Your task to perform on an android device: turn pop-ups on in chrome Image 0: 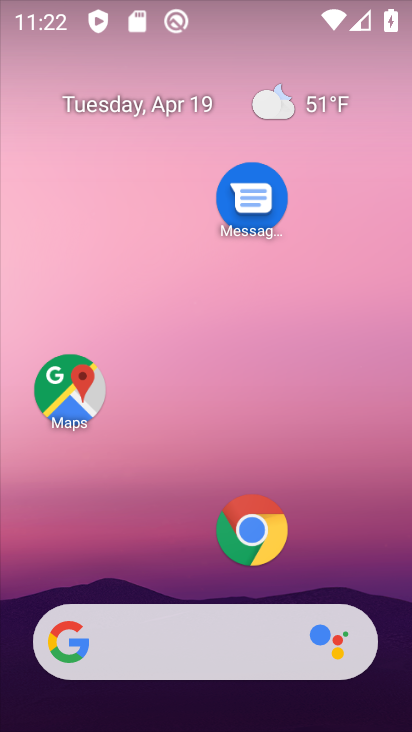
Step 0: click (252, 540)
Your task to perform on an android device: turn pop-ups on in chrome Image 1: 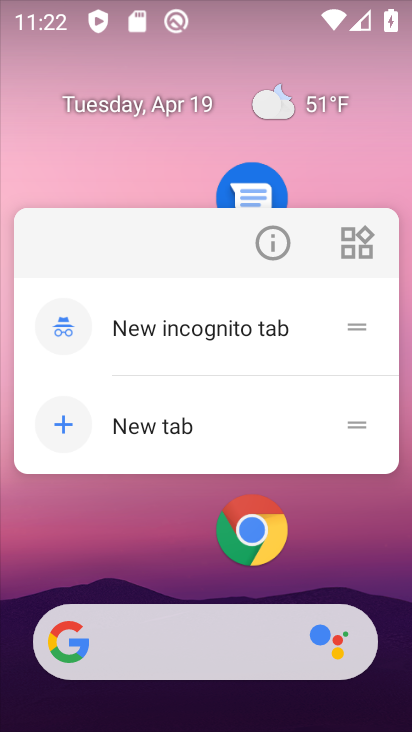
Step 1: click (282, 540)
Your task to perform on an android device: turn pop-ups on in chrome Image 2: 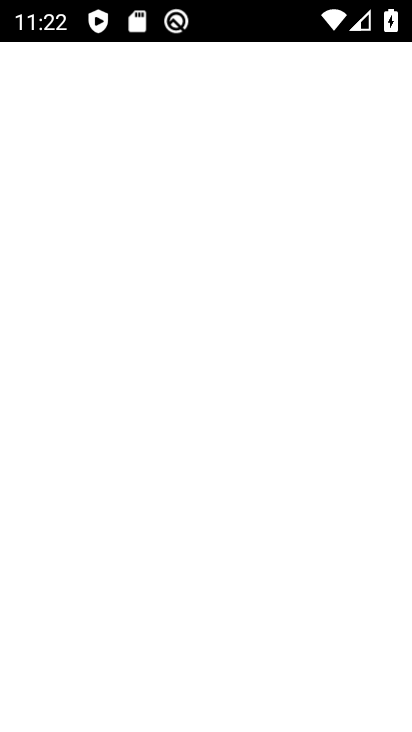
Step 2: click (285, 531)
Your task to perform on an android device: turn pop-ups on in chrome Image 3: 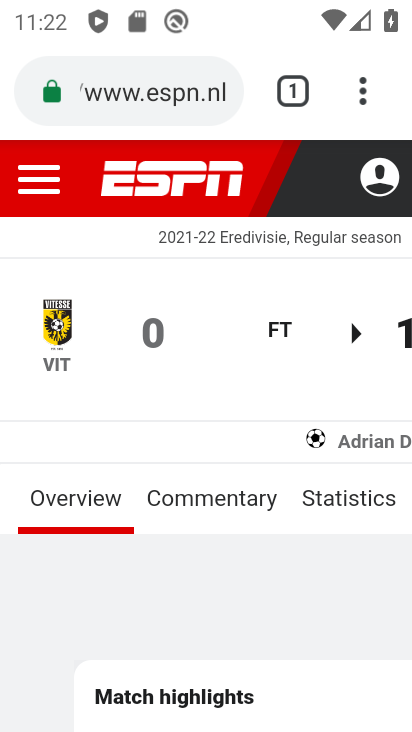
Step 3: drag from (368, 106) to (216, 569)
Your task to perform on an android device: turn pop-ups on in chrome Image 4: 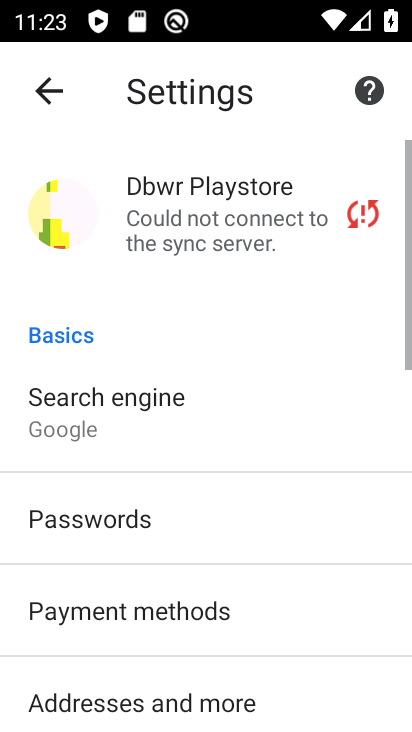
Step 4: drag from (101, 608) to (266, 191)
Your task to perform on an android device: turn pop-ups on in chrome Image 5: 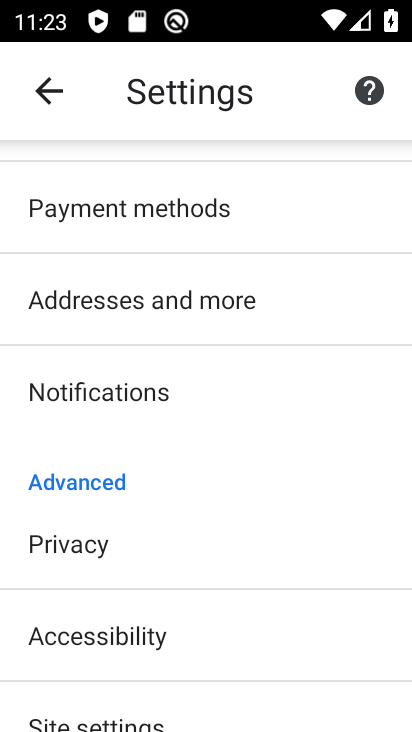
Step 5: drag from (192, 628) to (287, 296)
Your task to perform on an android device: turn pop-ups on in chrome Image 6: 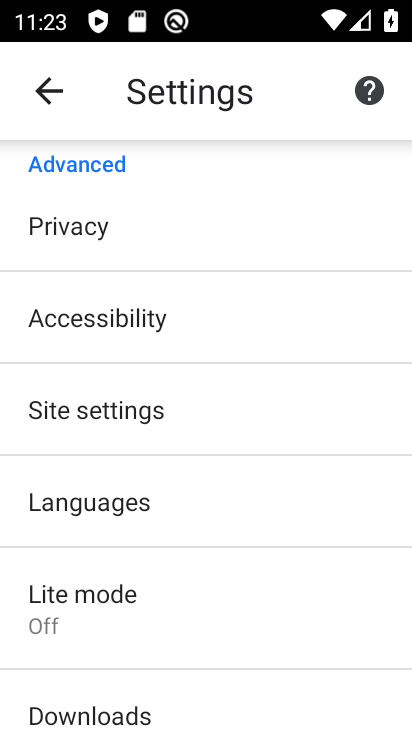
Step 6: click (205, 413)
Your task to perform on an android device: turn pop-ups on in chrome Image 7: 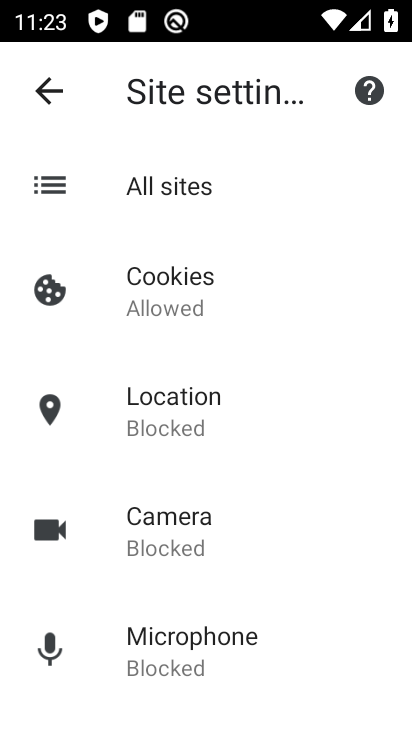
Step 7: drag from (209, 614) to (328, 225)
Your task to perform on an android device: turn pop-ups on in chrome Image 8: 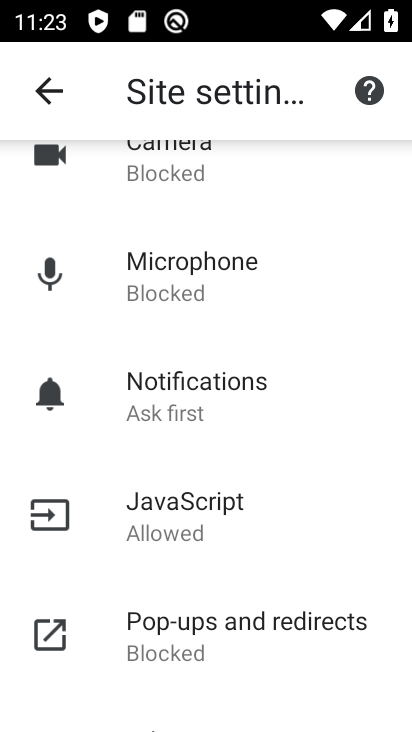
Step 8: click (227, 624)
Your task to perform on an android device: turn pop-ups on in chrome Image 9: 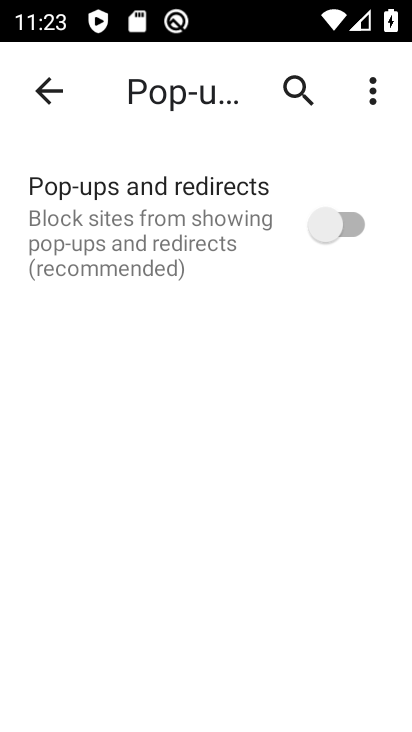
Step 9: click (380, 227)
Your task to perform on an android device: turn pop-ups on in chrome Image 10: 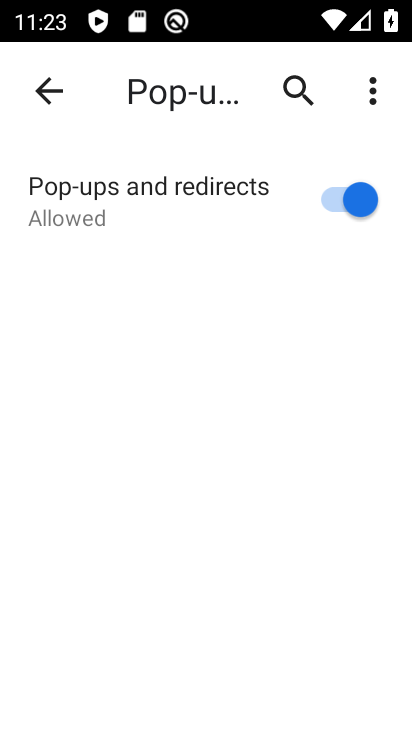
Step 10: task complete